Your task to perform on an android device: turn off notifications in google photos Image 0: 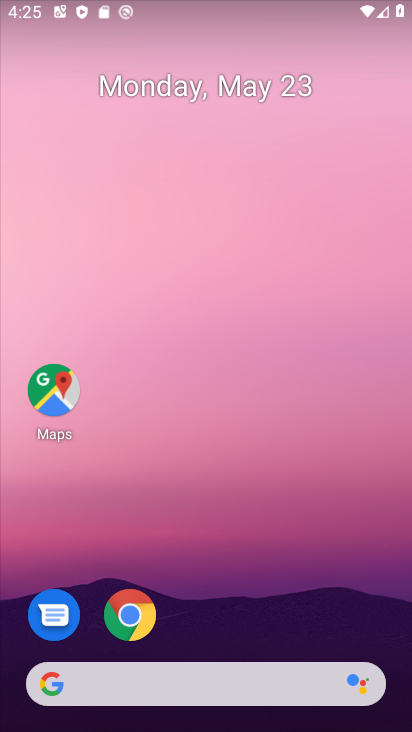
Step 0: drag from (262, 619) to (289, 309)
Your task to perform on an android device: turn off notifications in google photos Image 1: 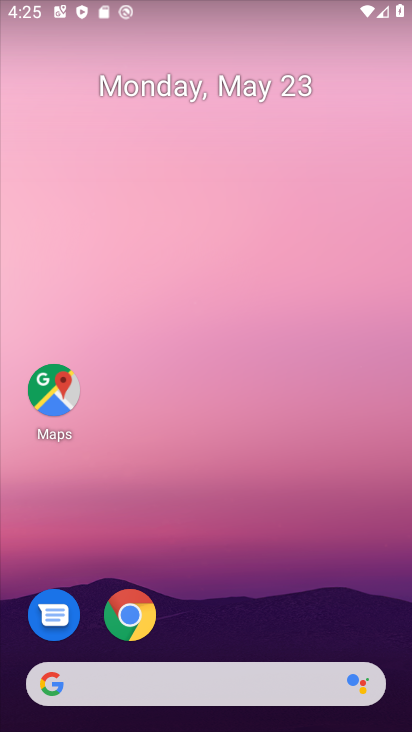
Step 1: drag from (285, 602) to (276, 113)
Your task to perform on an android device: turn off notifications in google photos Image 2: 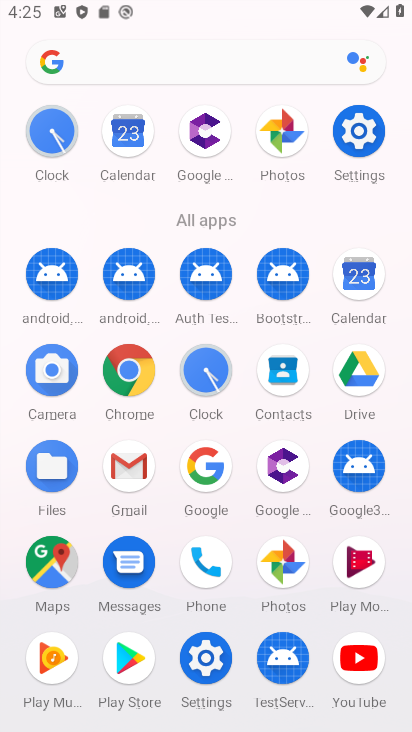
Step 2: click (290, 134)
Your task to perform on an android device: turn off notifications in google photos Image 3: 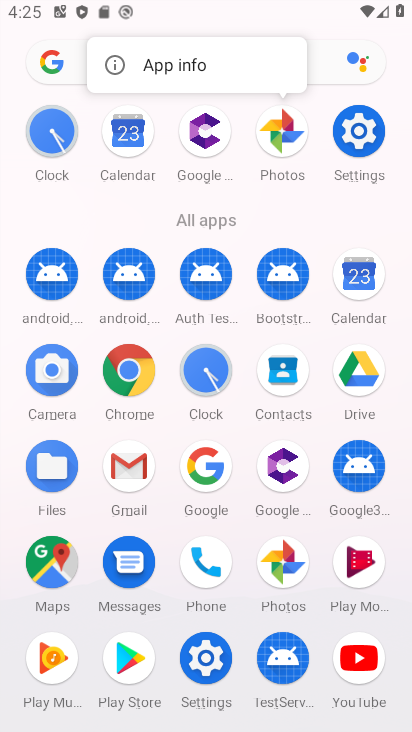
Step 3: click (174, 58)
Your task to perform on an android device: turn off notifications in google photos Image 4: 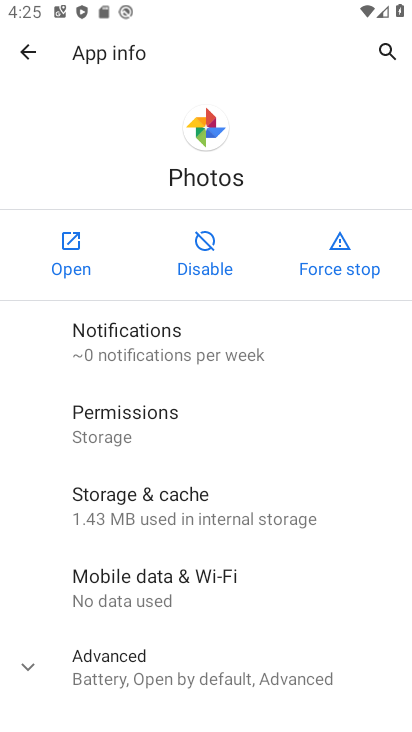
Step 4: click (166, 339)
Your task to perform on an android device: turn off notifications in google photos Image 5: 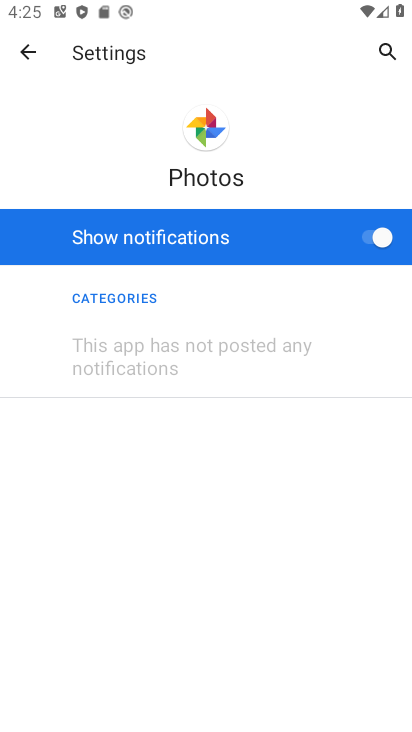
Step 5: click (370, 237)
Your task to perform on an android device: turn off notifications in google photos Image 6: 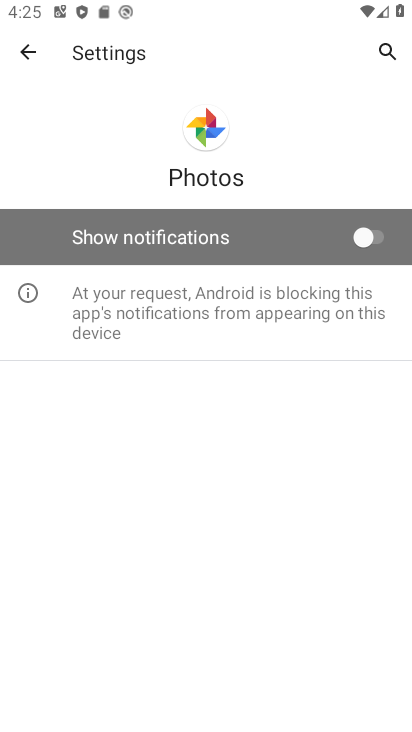
Step 6: task complete